Your task to perform on an android device: Open location settings Image 0: 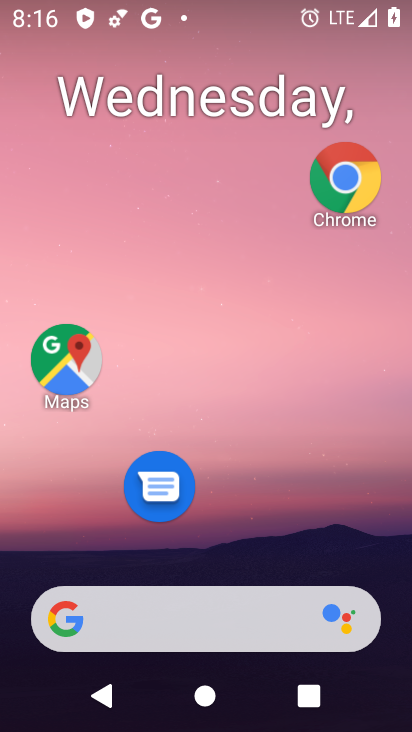
Step 0: drag from (245, 585) to (310, 129)
Your task to perform on an android device: Open location settings Image 1: 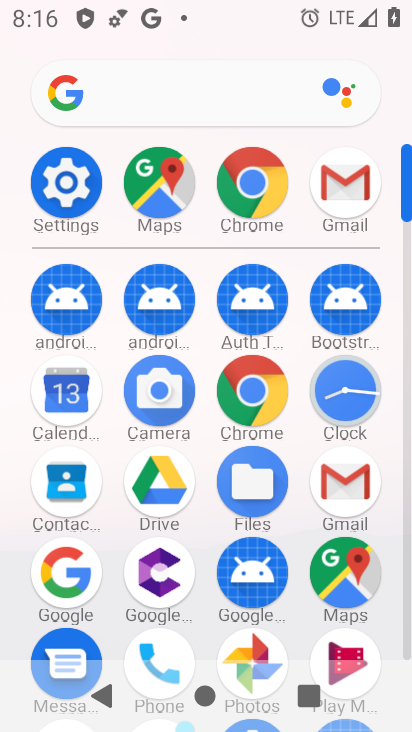
Step 1: click (73, 190)
Your task to perform on an android device: Open location settings Image 2: 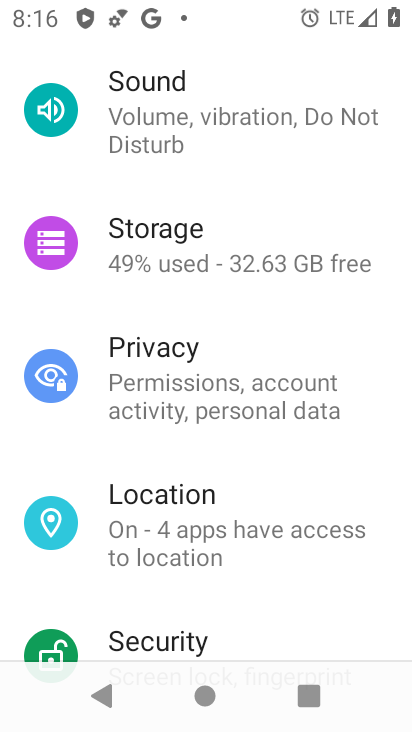
Step 2: click (175, 527)
Your task to perform on an android device: Open location settings Image 3: 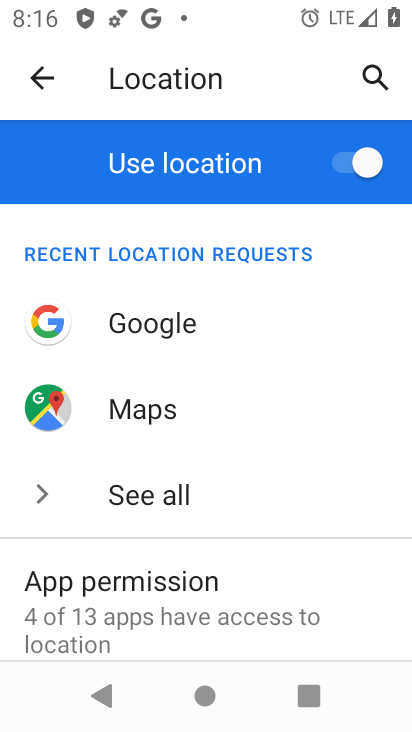
Step 3: task complete